Your task to perform on an android device: turn on sleep mode Image 0: 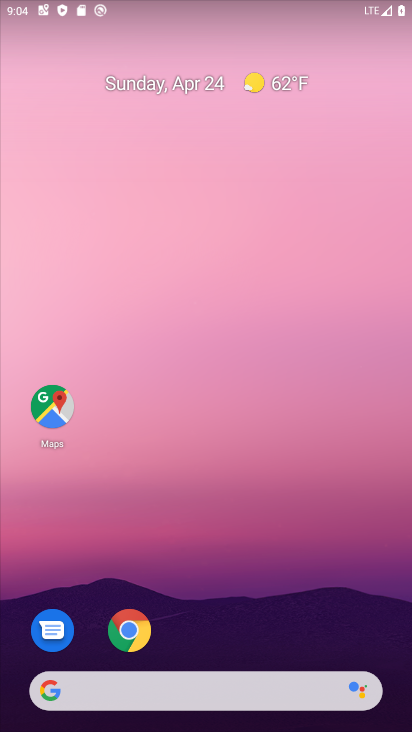
Step 0: drag from (223, 569) to (170, 117)
Your task to perform on an android device: turn on sleep mode Image 1: 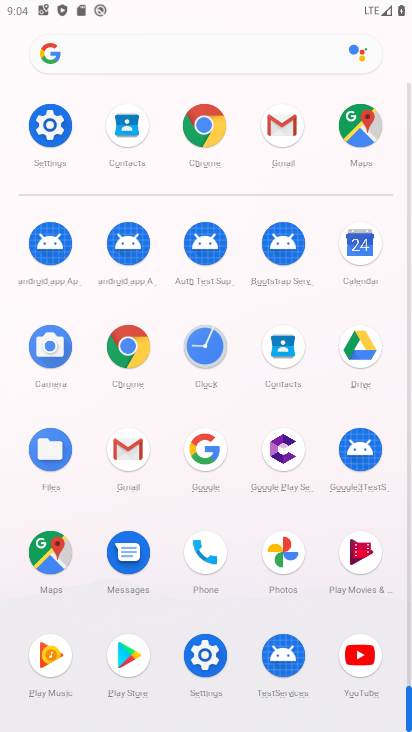
Step 1: drag from (11, 534) to (1, 287)
Your task to perform on an android device: turn on sleep mode Image 2: 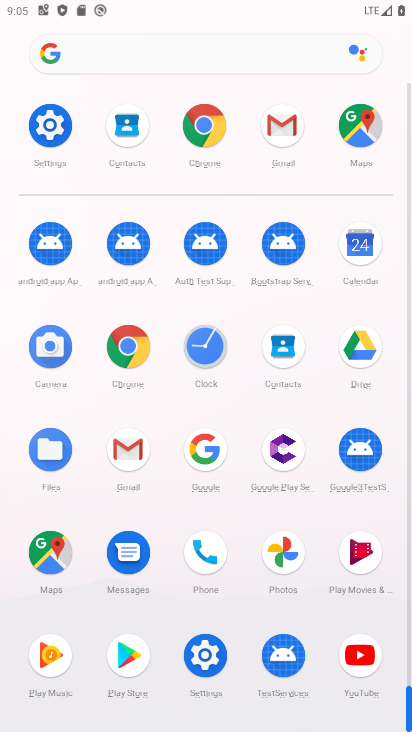
Step 2: click (201, 654)
Your task to perform on an android device: turn on sleep mode Image 3: 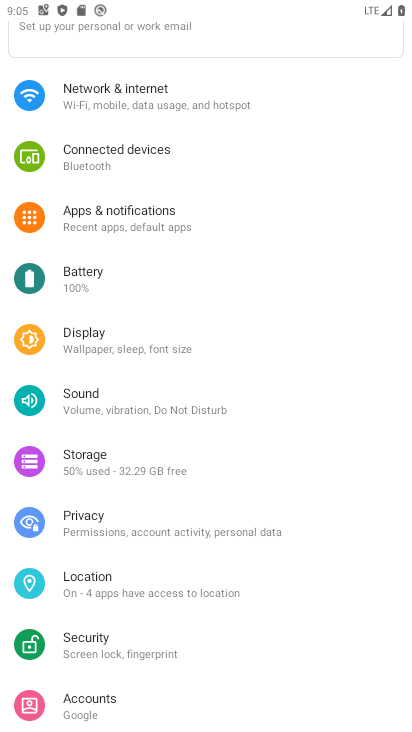
Step 3: drag from (258, 179) to (240, 438)
Your task to perform on an android device: turn on sleep mode Image 4: 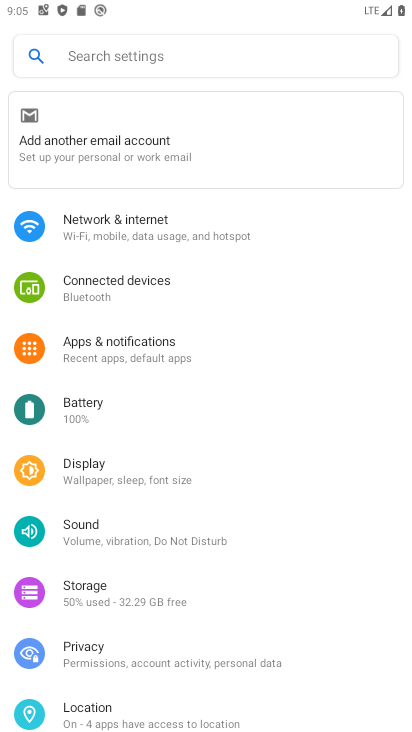
Step 4: click (121, 205)
Your task to perform on an android device: turn on sleep mode Image 5: 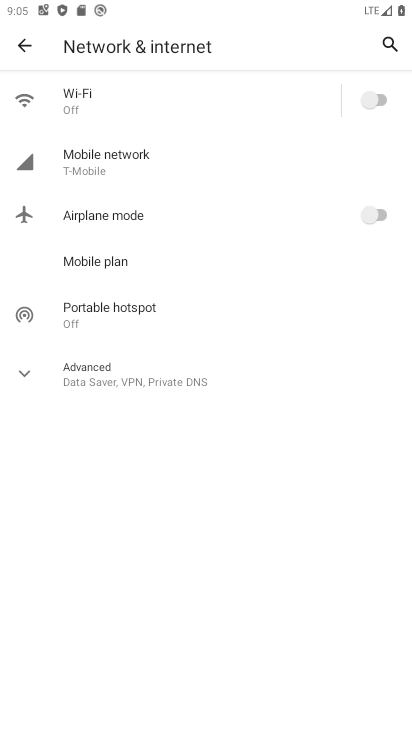
Step 5: click (17, 376)
Your task to perform on an android device: turn on sleep mode Image 6: 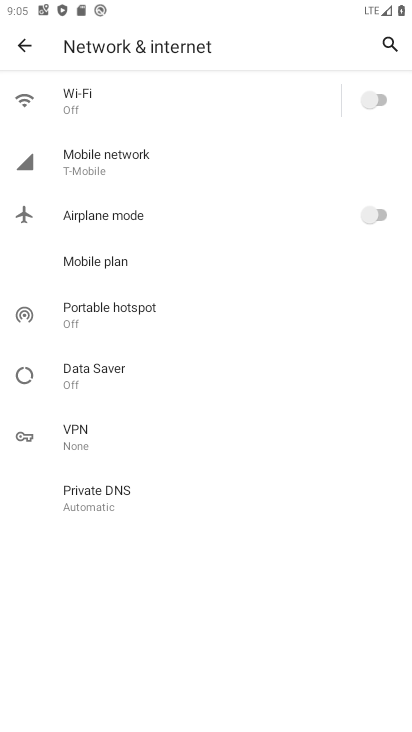
Step 6: click (22, 48)
Your task to perform on an android device: turn on sleep mode Image 7: 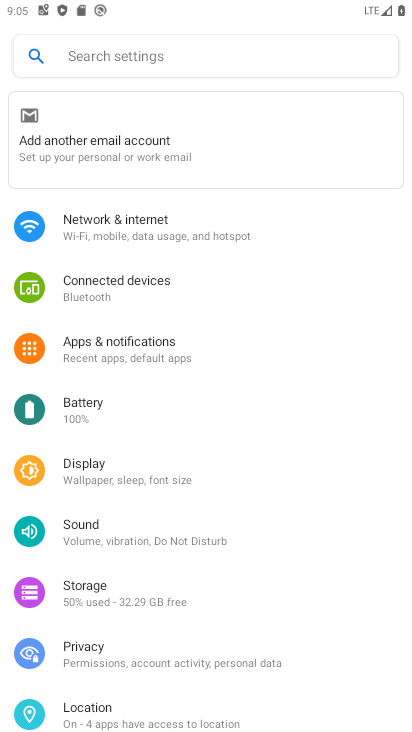
Step 7: click (126, 468)
Your task to perform on an android device: turn on sleep mode Image 8: 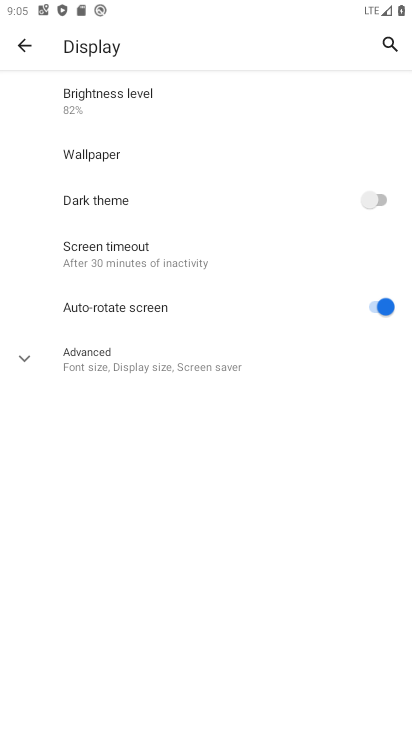
Step 8: click (24, 371)
Your task to perform on an android device: turn on sleep mode Image 9: 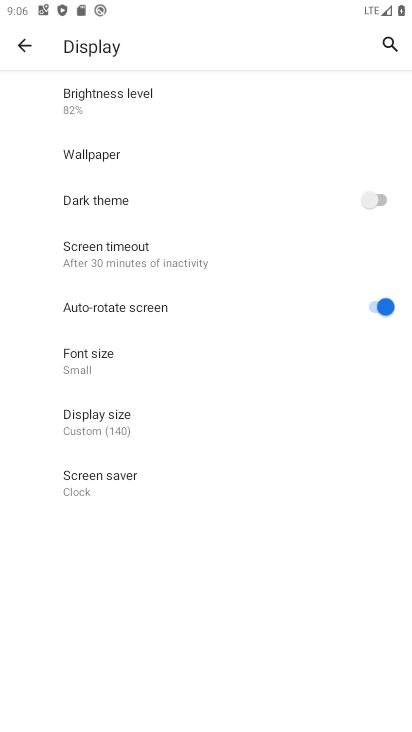
Step 9: task complete